Your task to perform on an android device: Open the map Image 0: 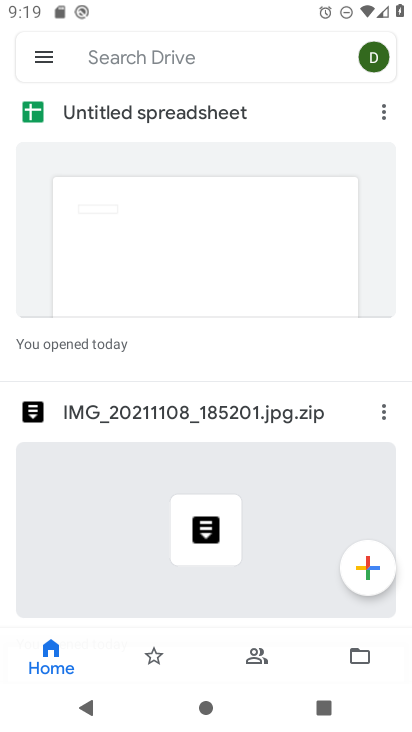
Step 0: press home button
Your task to perform on an android device: Open the map Image 1: 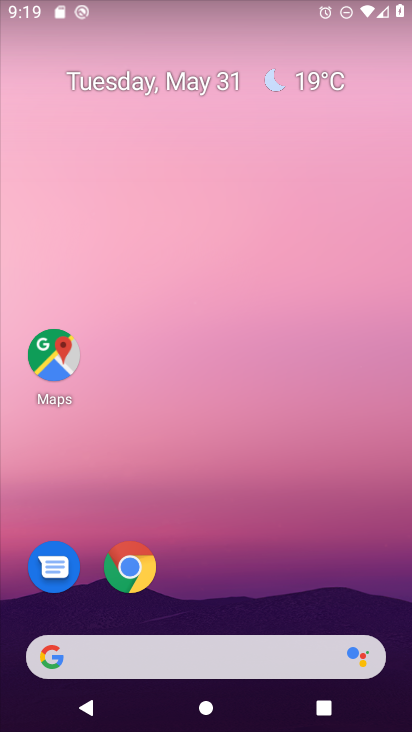
Step 1: click (49, 367)
Your task to perform on an android device: Open the map Image 2: 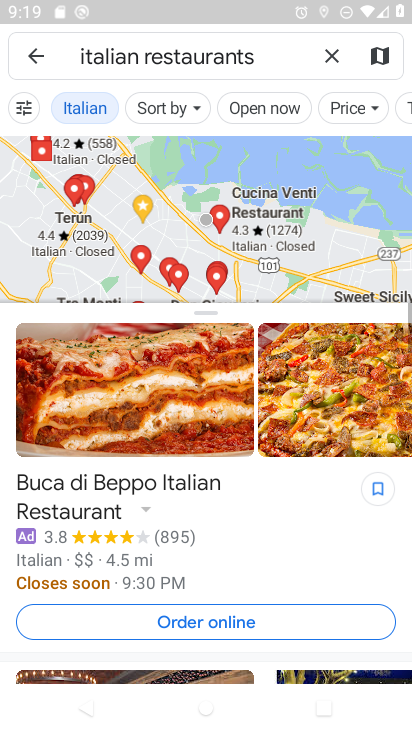
Step 2: click (327, 63)
Your task to perform on an android device: Open the map Image 3: 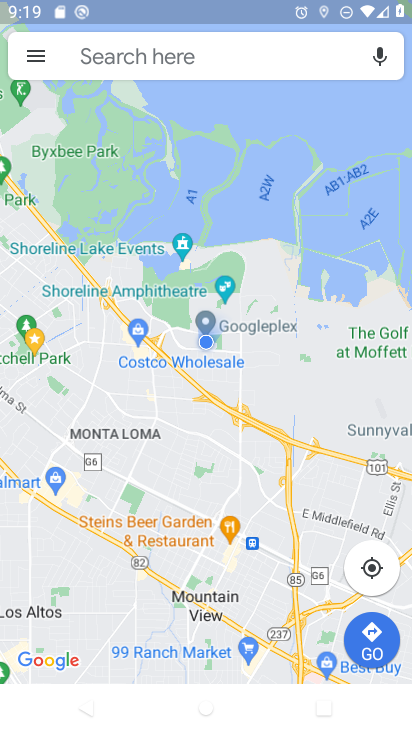
Step 3: task complete